Your task to perform on an android device: open device folders in google photos Image 0: 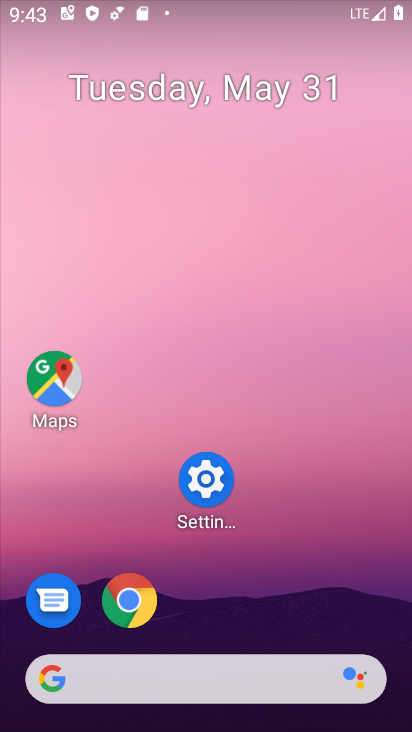
Step 0: drag from (251, 698) to (213, 123)
Your task to perform on an android device: open device folders in google photos Image 1: 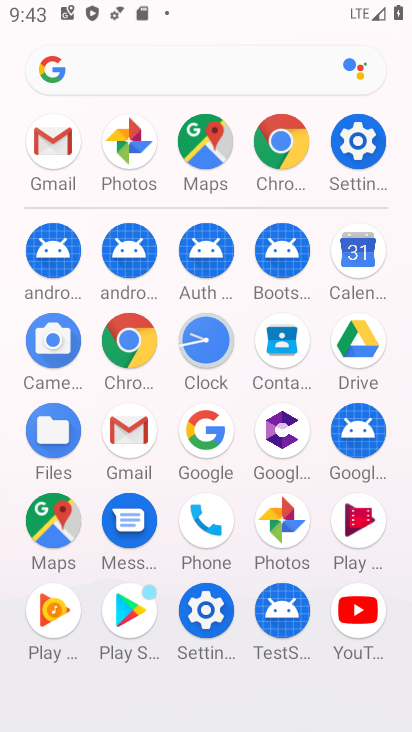
Step 1: click (265, 524)
Your task to perform on an android device: open device folders in google photos Image 2: 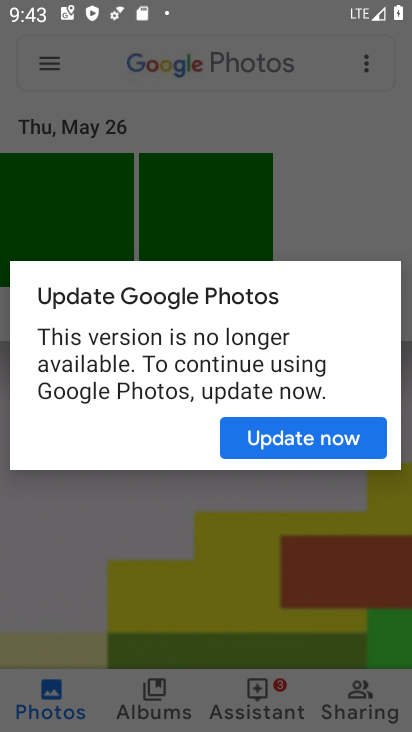
Step 2: click (284, 440)
Your task to perform on an android device: open device folders in google photos Image 3: 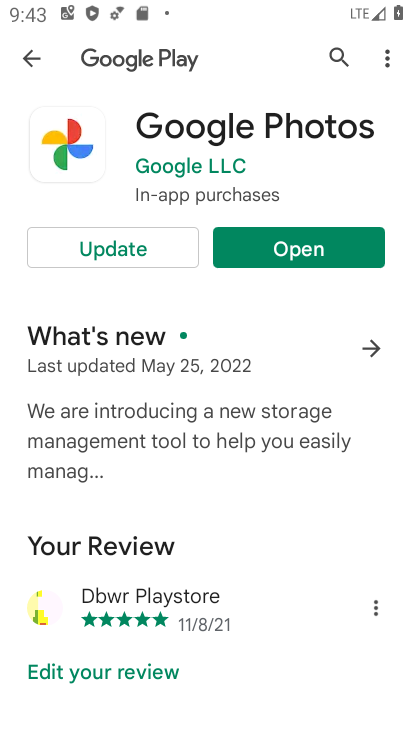
Step 3: click (126, 253)
Your task to perform on an android device: open device folders in google photos Image 4: 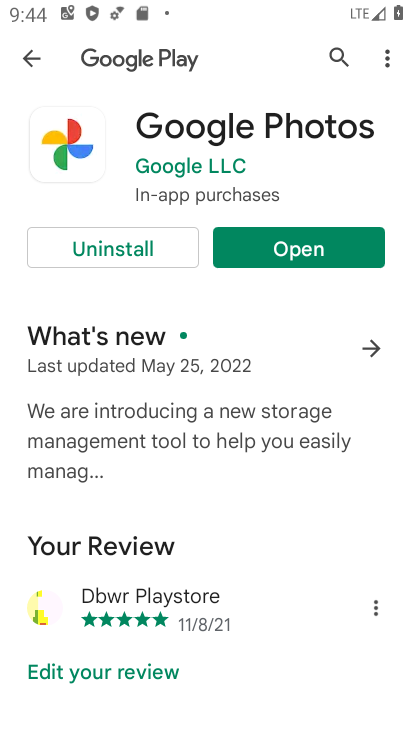
Step 4: click (275, 239)
Your task to perform on an android device: open device folders in google photos Image 5: 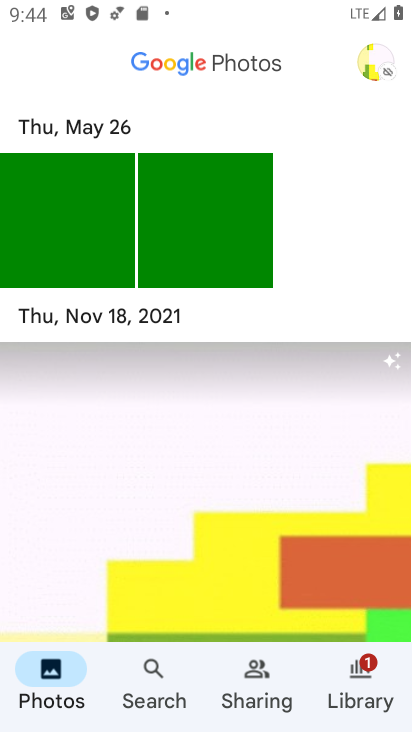
Step 5: click (147, 669)
Your task to perform on an android device: open device folders in google photos Image 6: 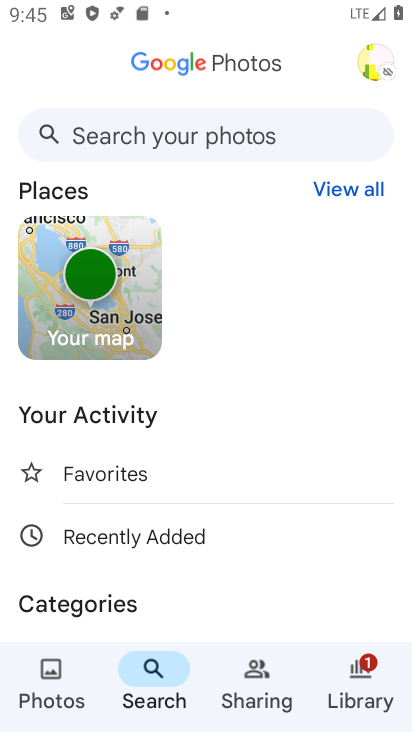
Step 6: click (154, 140)
Your task to perform on an android device: open device folders in google photos Image 7: 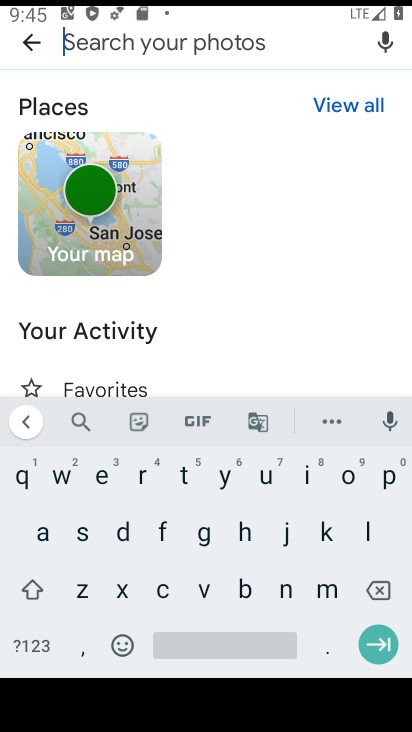
Step 7: click (117, 528)
Your task to perform on an android device: open device folders in google photos Image 8: 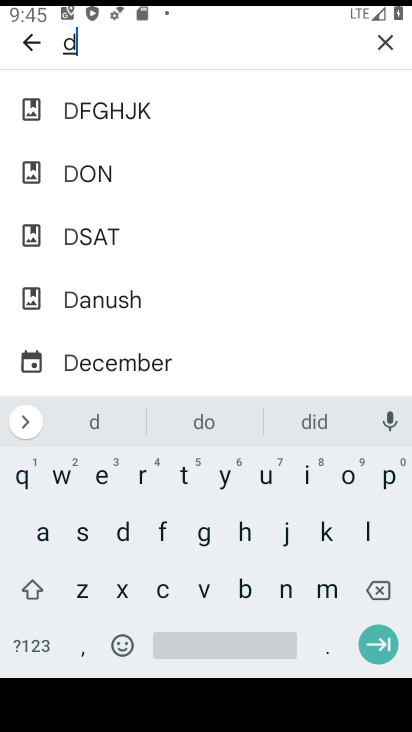
Step 8: click (100, 475)
Your task to perform on an android device: open device folders in google photos Image 9: 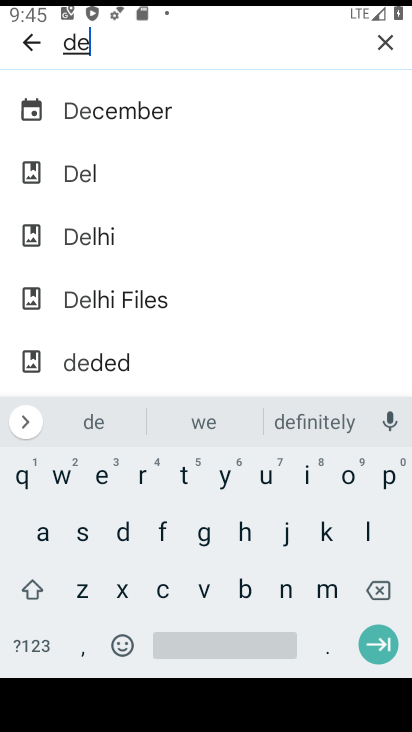
Step 9: click (209, 591)
Your task to perform on an android device: open device folders in google photos Image 10: 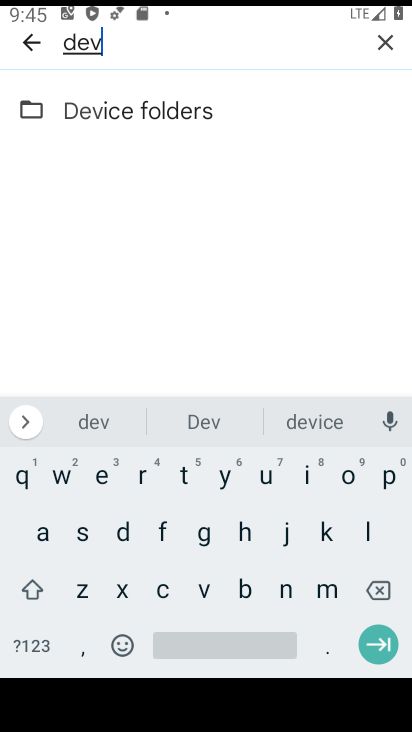
Step 10: click (146, 123)
Your task to perform on an android device: open device folders in google photos Image 11: 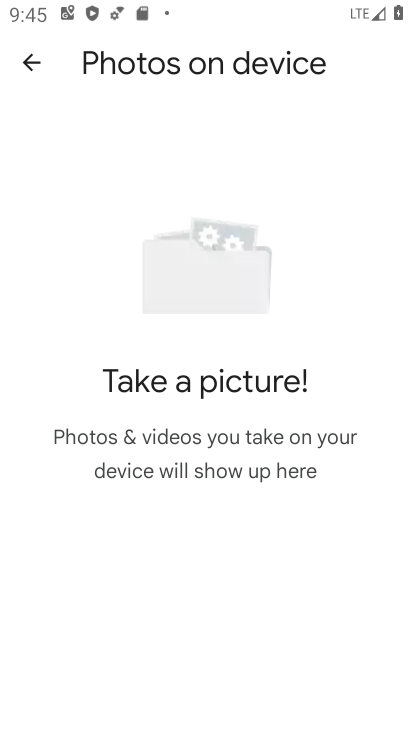
Step 11: task complete